Your task to perform on an android device: Open eBay Image 0: 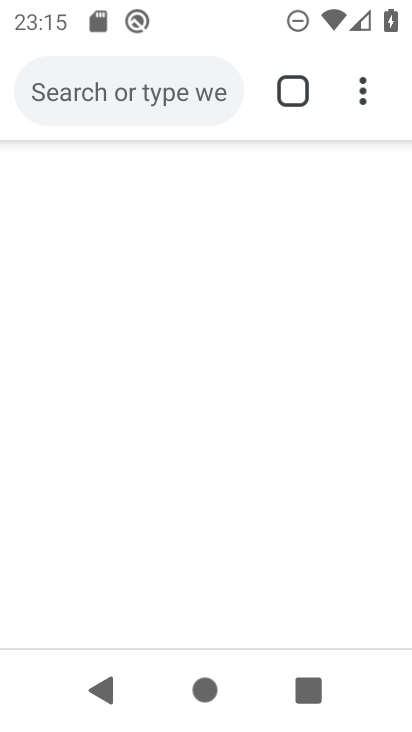
Step 0: click (202, 74)
Your task to perform on an android device: Open eBay Image 1: 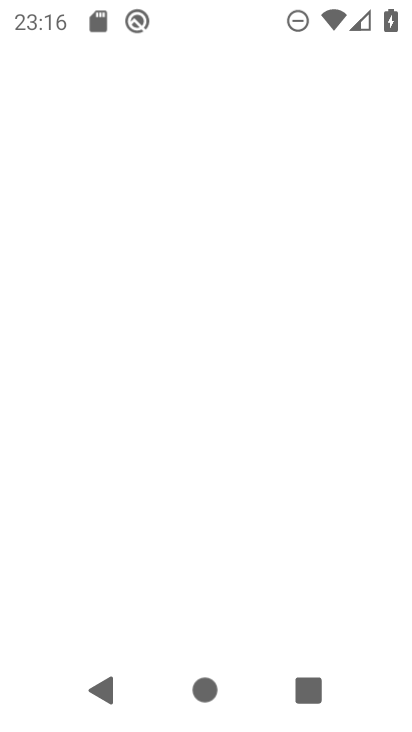
Step 1: press home button
Your task to perform on an android device: Open eBay Image 2: 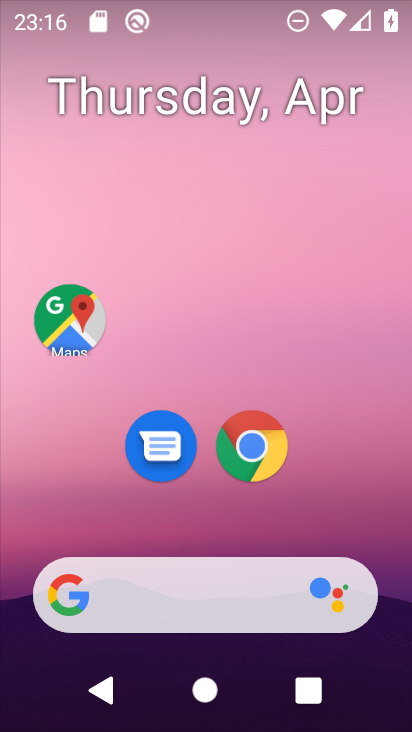
Step 2: drag from (206, 533) to (313, 100)
Your task to perform on an android device: Open eBay Image 3: 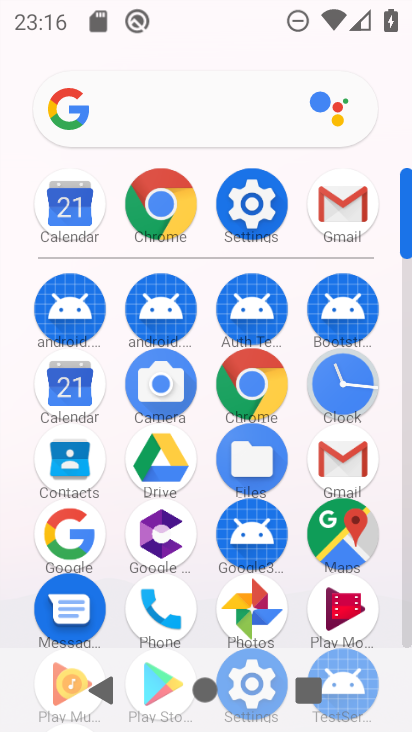
Step 3: click (148, 196)
Your task to perform on an android device: Open eBay Image 4: 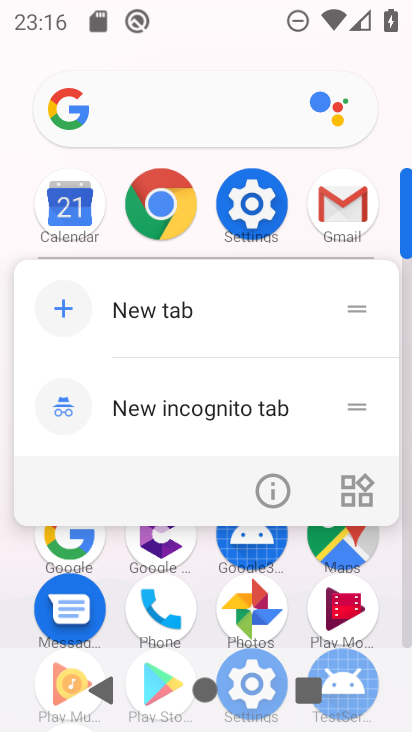
Step 4: click (277, 491)
Your task to perform on an android device: Open eBay Image 5: 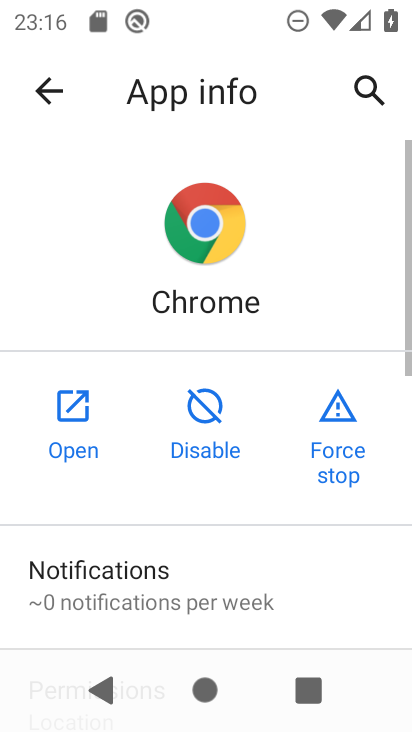
Step 5: click (62, 434)
Your task to perform on an android device: Open eBay Image 6: 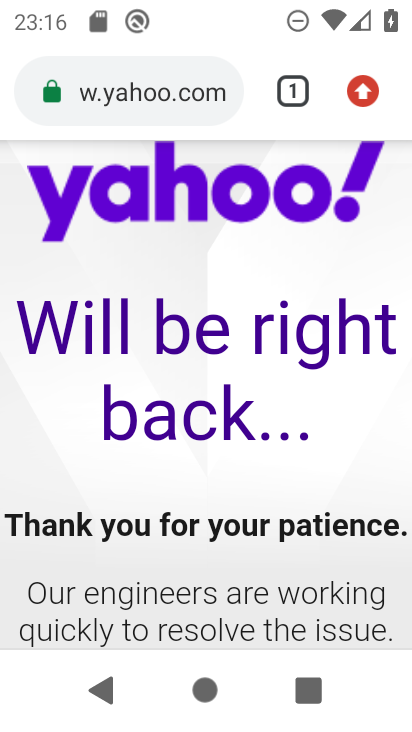
Step 6: click (116, 98)
Your task to perform on an android device: Open eBay Image 7: 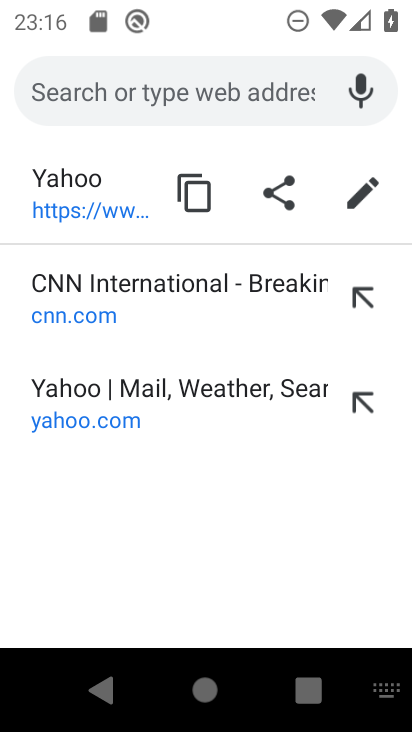
Step 7: type "ebay"
Your task to perform on an android device: Open eBay Image 8: 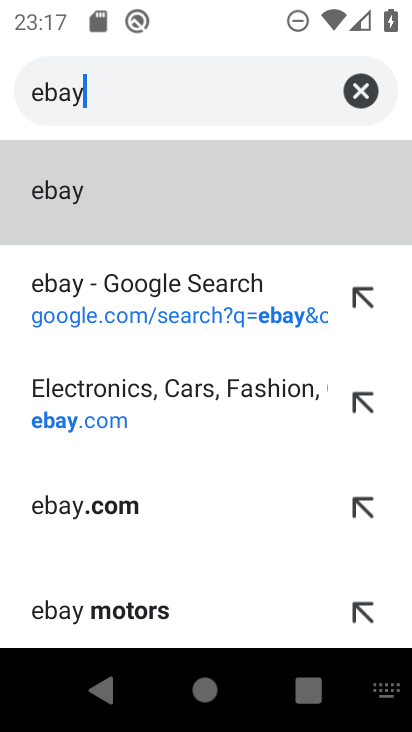
Step 8: click (78, 196)
Your task to perform on an android device: Open eBay Image 9: 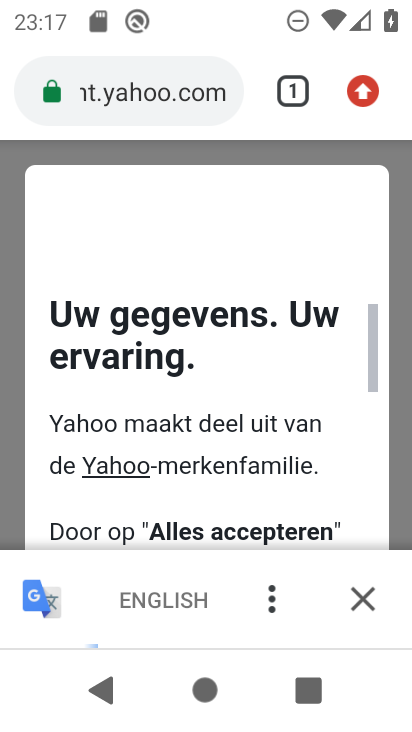
Step 9: click (363, 603)
Your task to perform on an android device: Open eBay Image 10: 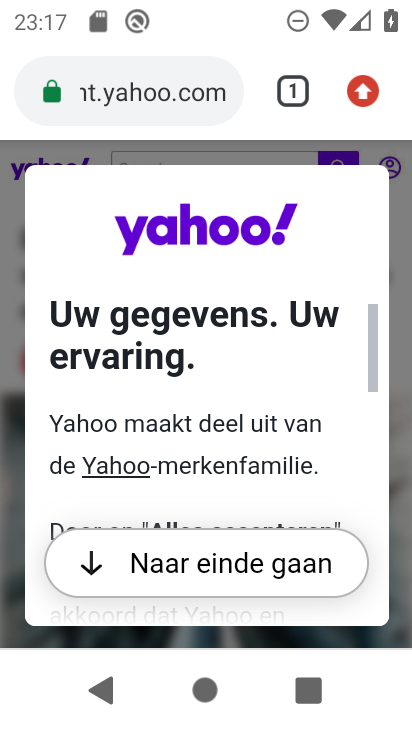
Step 10: click (155, 90)
Your task to perform on an android device: Open eBay Image 11: 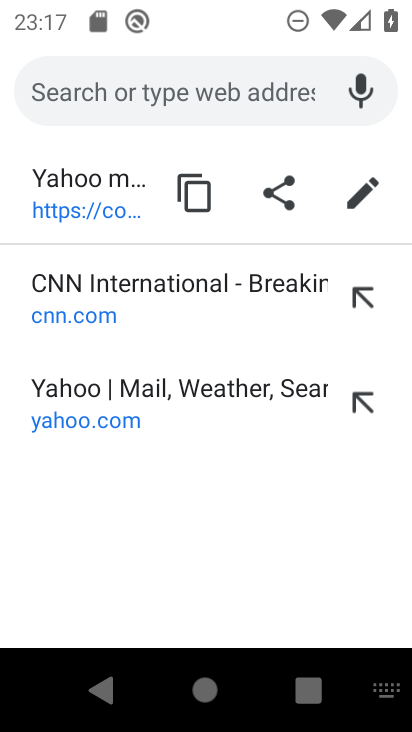
Step 11: type "ebay"
Your task to perform on an android device: Open eBay Image 12: 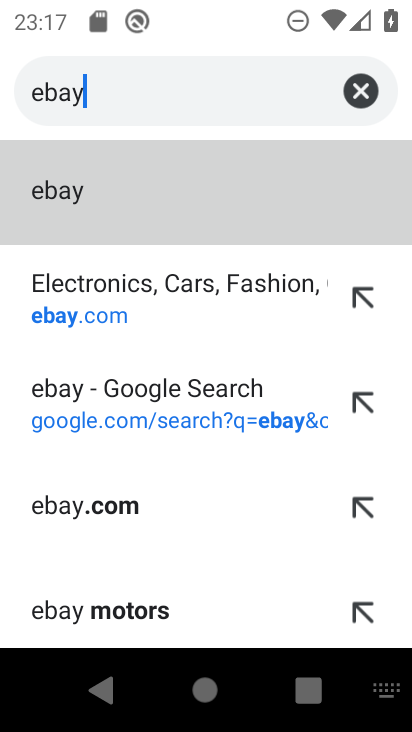
Step 12: click (79, 193)
Your task to perform on an android device: Open eBay Image 13: 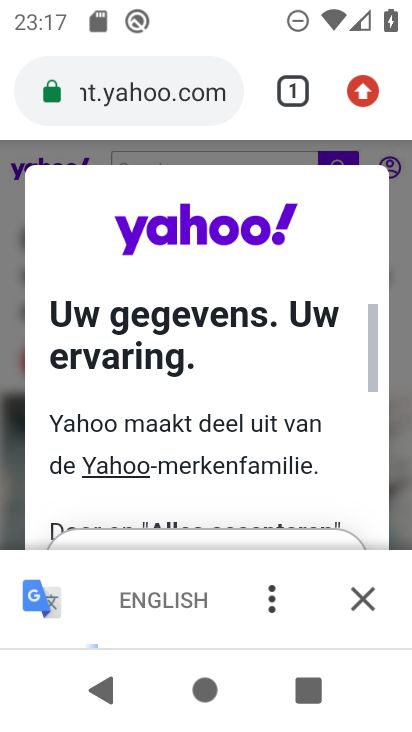
Step 13: click (198, 104)
Your task to perform on an android device: Open eBay Image 14: 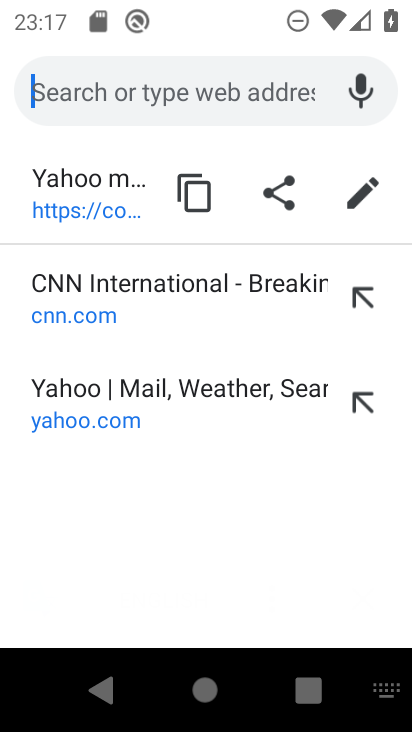
Step 14: type "ebay"
Your task to perform on an android device: Open eBay Image 15: 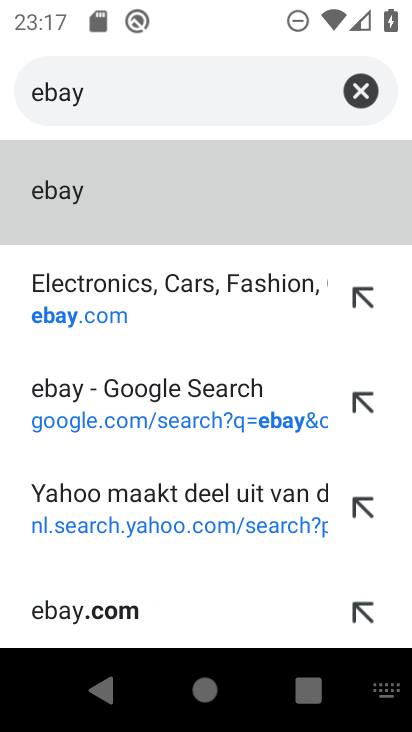
Step 15: click (63, 305)
Your task to perform on an android device: Open eBay Image 16: 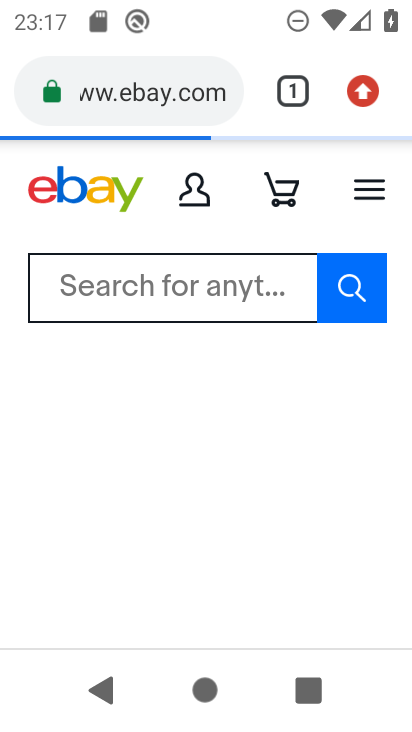
Step 16: task complete